Your task to perform on an android device: find snoozed emails in the gmail app Image 0: 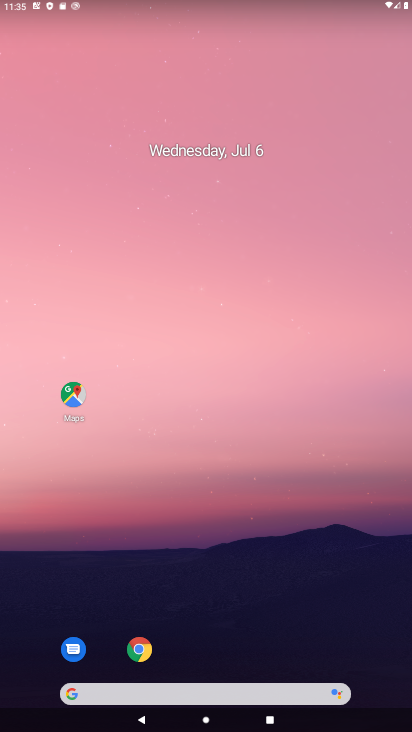
Step 0: drag from (45, 705) to (238, 238)
Your task to perform on an android device: find snoozed emails in the gmail app Image 1: 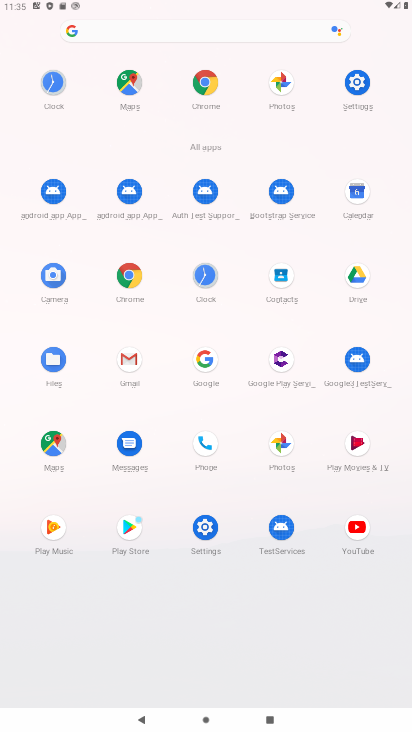
Step 1: click (127, 362)
Your task to perform on an android device: find snoozed emails in the gmail app Image 2: 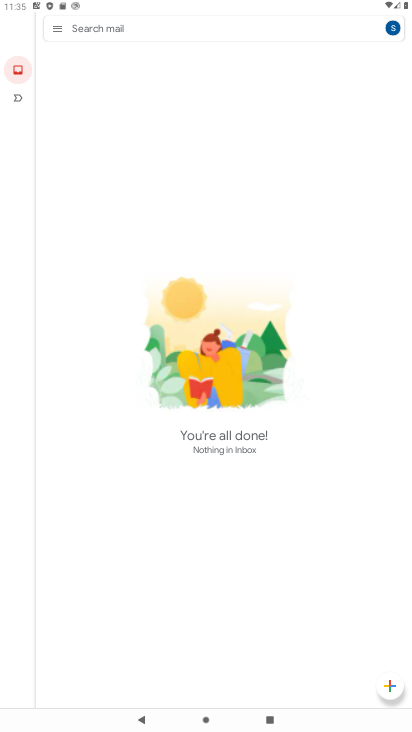
Step 2: click (58, 29)
Your task to perform on an android device: find snoozed emails in the gmail app Image 3: 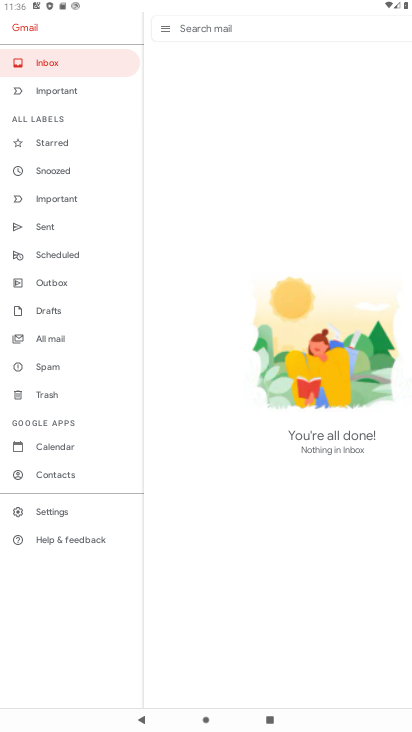
Step 3: click (63, 176)
Your task to perform on an android device: find snoozed emails in the gmail app Image 4: 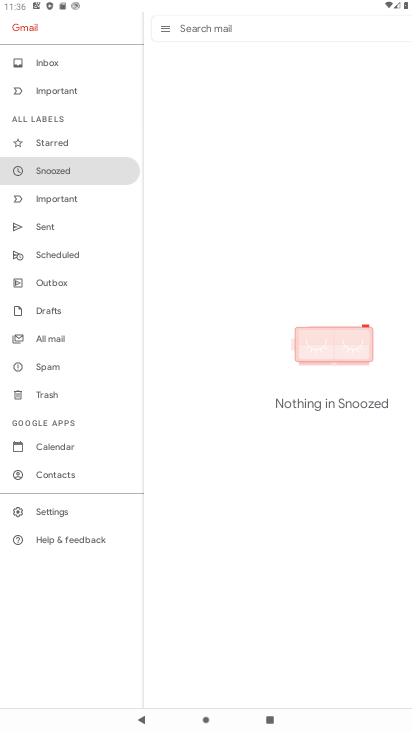
Step 4: task complete